Your task to perform on an android device: make emails show in primary in the gmail app Image 0: 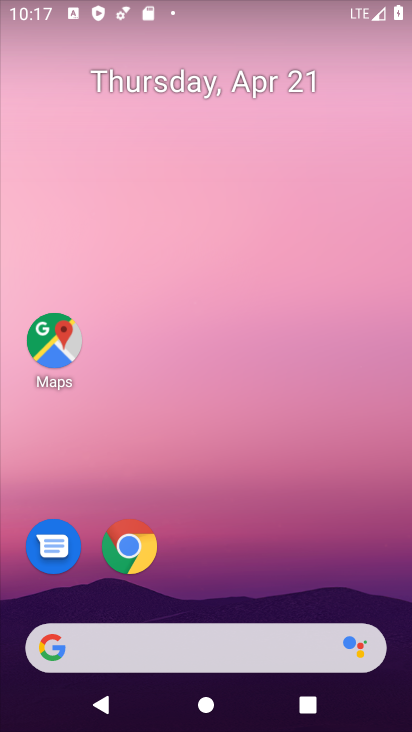
Step 0: drag from (334, 594) to (278, 104)
Your task to perform on an android device: make emails show in primary in the gmail app Image 1: 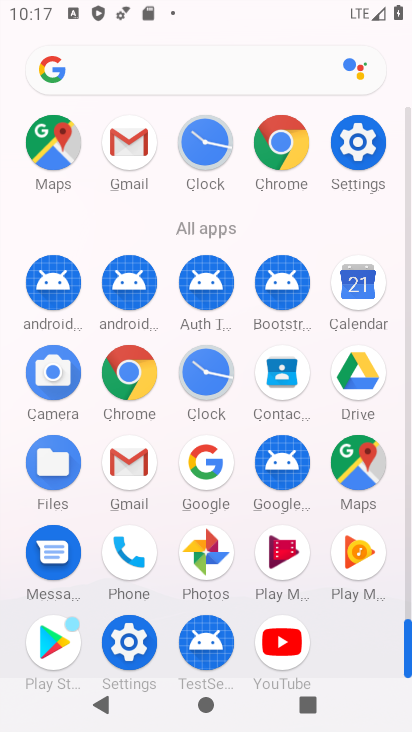
Step 1: click (125, 461)
Your task to perform on an android device: make emails show in primary in the gmail app Image 2: 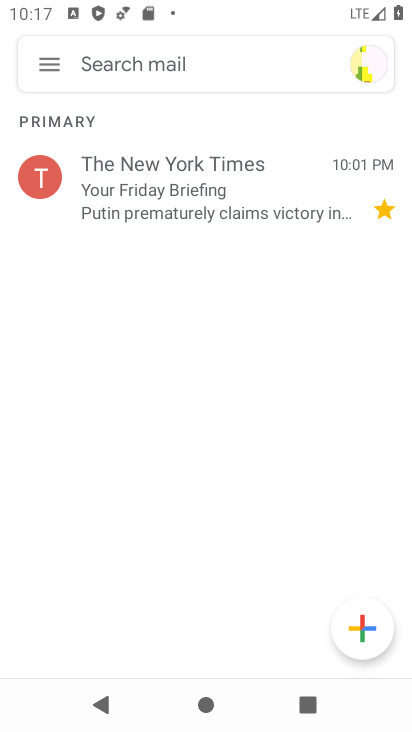
Step 2: click (55, 56)
Your task to perform on an android device: make emails show in primary in the gmail app Image 3: 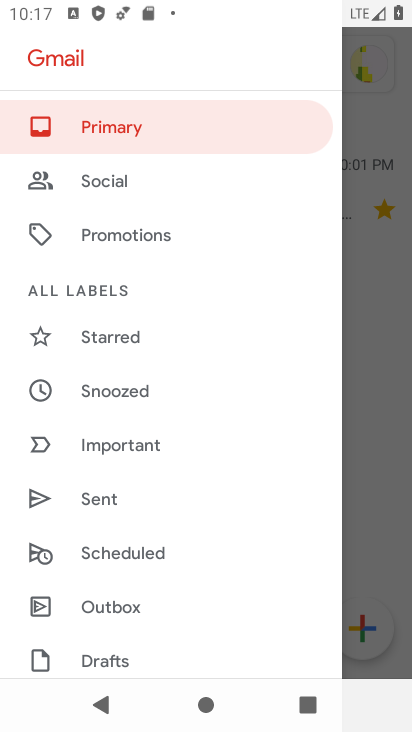
Step 3: click (64, 121)
Your task to perform on an android device: make emails show in primary in the gmail app Image 4: 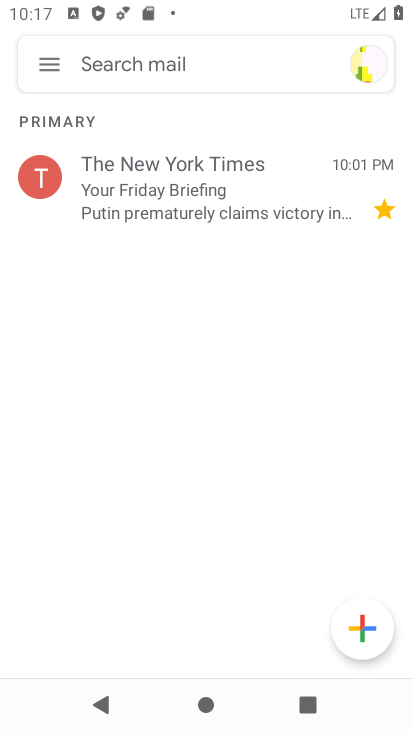
Step 4: task complete